Your task to perform on an android device: When is my next appointment? Image 0: 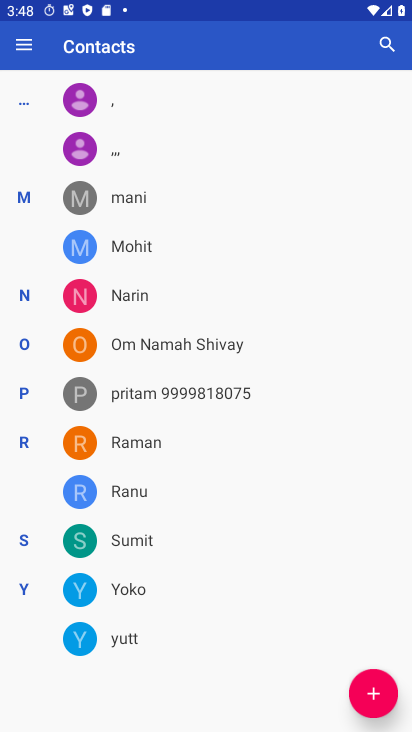
Step 0: press home button
Your task to perform on an android device: When is my next appointment? Image 1: 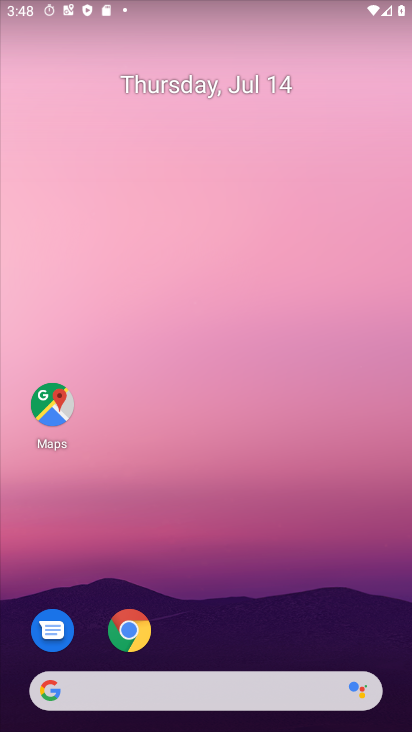
Step 1: drag from (230, 700) to (230, 138)
Your task to perform on an android device: When is my next appointment? Image 2: 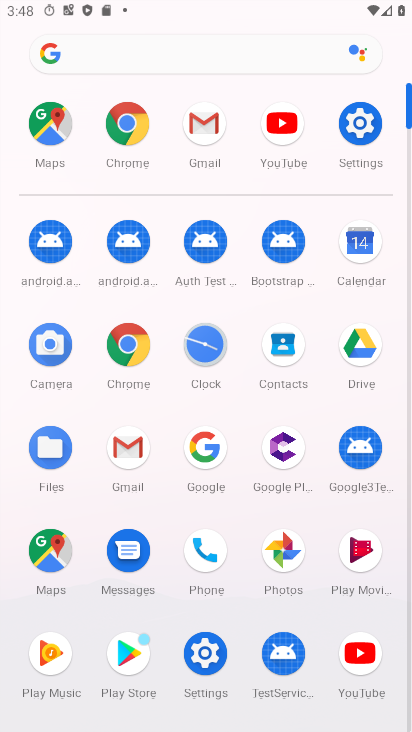
Step 2: click (357, 239)
Your task to perform on an android device: When is my next appointment? Image 3: 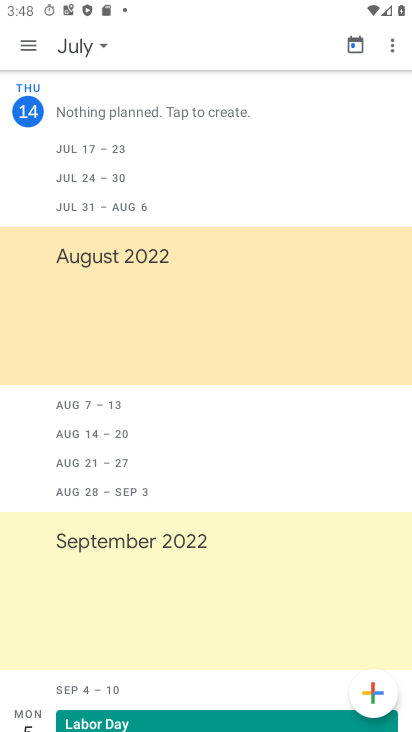
Step 3: click (96, 46)
Your task to perform on an android device: When is my next appointment? Image 4: 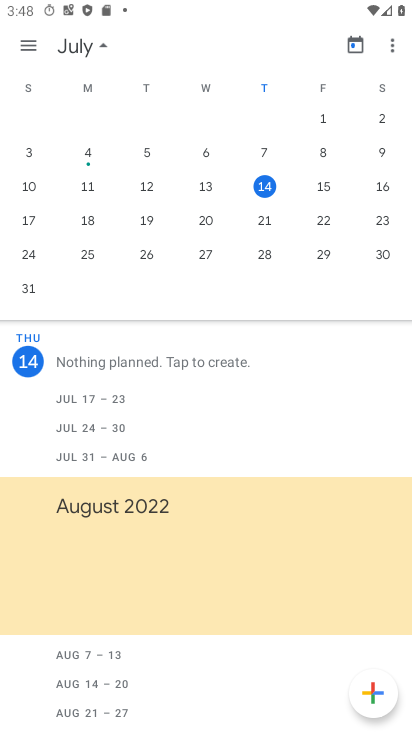
Step 4: click (325, 180)
Your task to perform on an android device: When is my next appointment? Image 5: 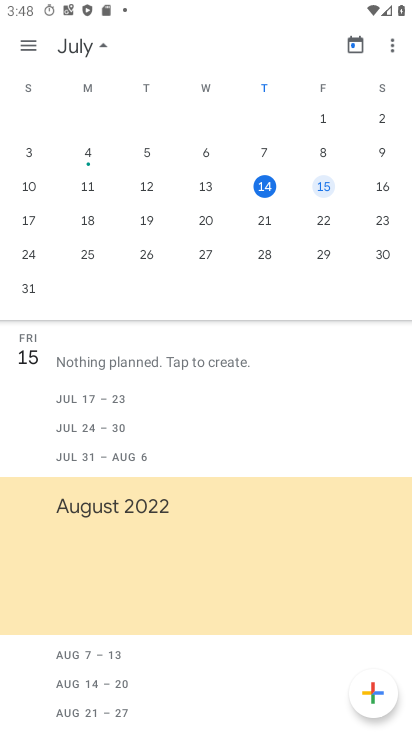
Step 5: click (322, 180)
Your task to perform on an android device: When is my next appointment? Image 6: 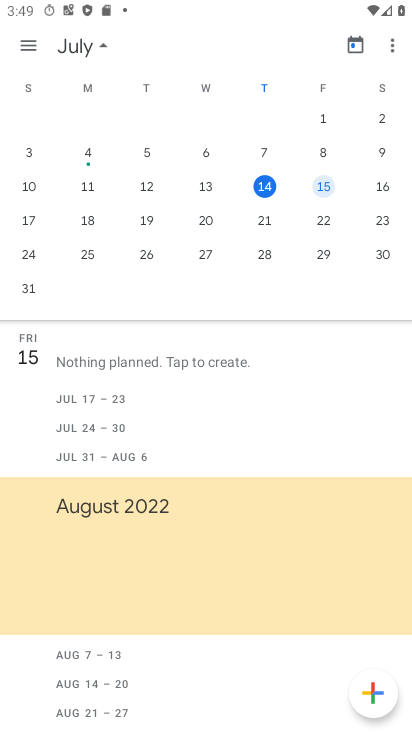
Step 6: click (322, 180)
Your task to perform on an android device: When is my next appointment? Image 7: 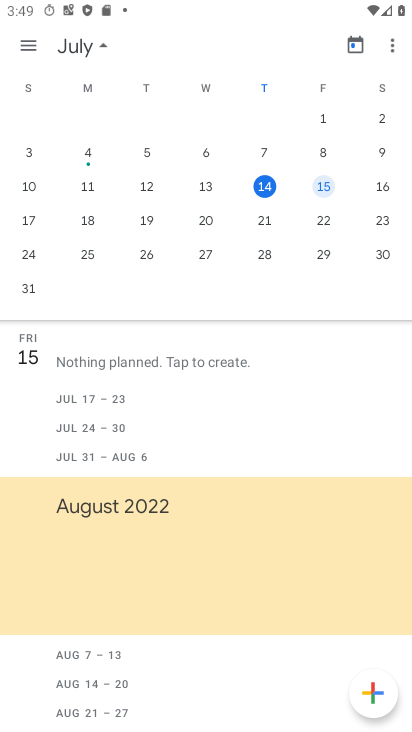
Step 7: task complete